Your task to perform on an android device: change the clock style Image 0: 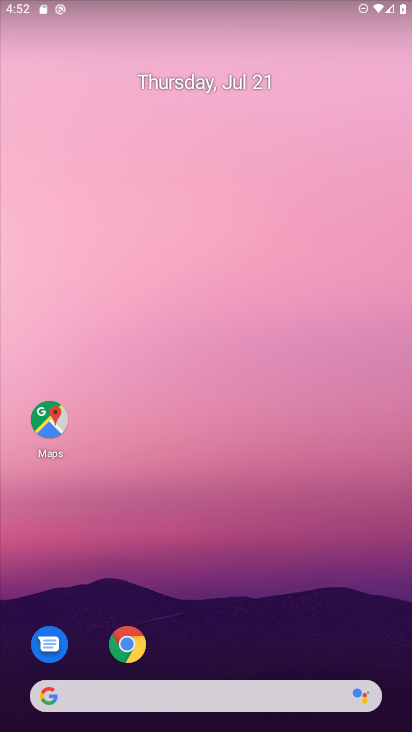
Step 0: drag from (227, 205) to (348, 79)
Your task to perform on an android device: change the clock style Image 1: 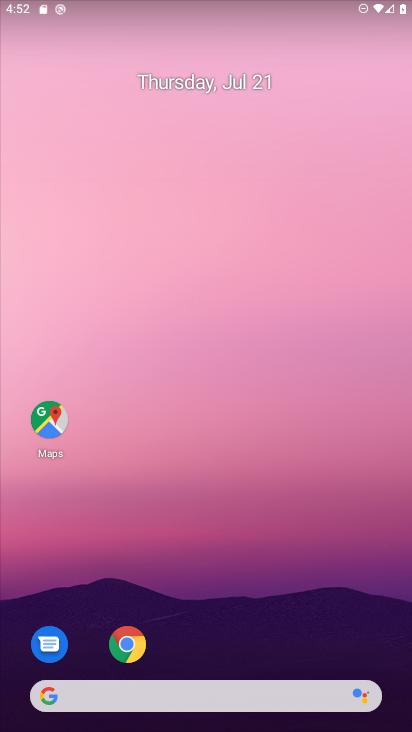
Step 1: drag from (185, 646) to (246, 122)
Your task to perform on an android device: change the clock style Image 2: 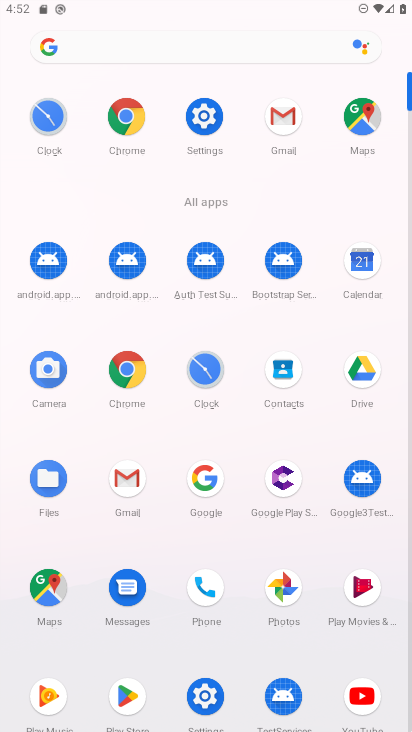
Step 2: click (203, 386)
Your task to perform on an android device: change the clock style Image 3: 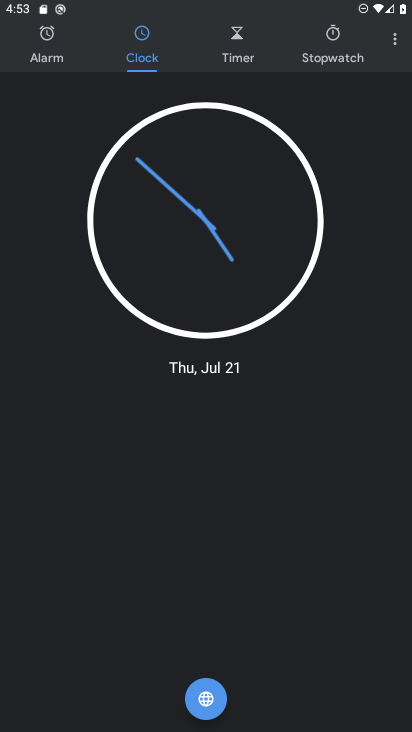
Step 3: click (394, 44)
Your task to perform on an android device: change the clock style Image 4: 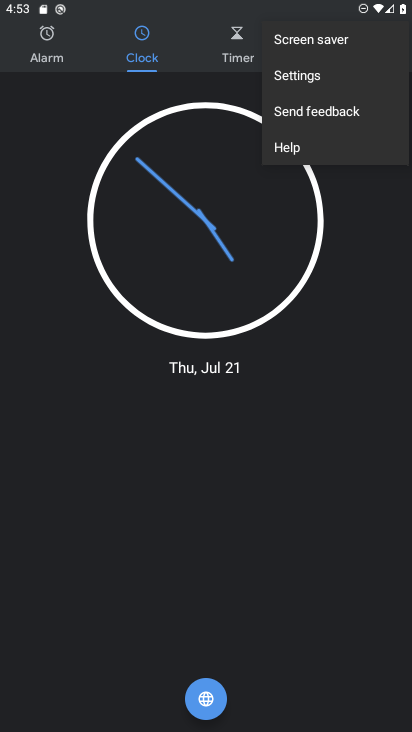
Step 4: click (292, 85)
Your task to perform on an android device: change the clock style Image 5: 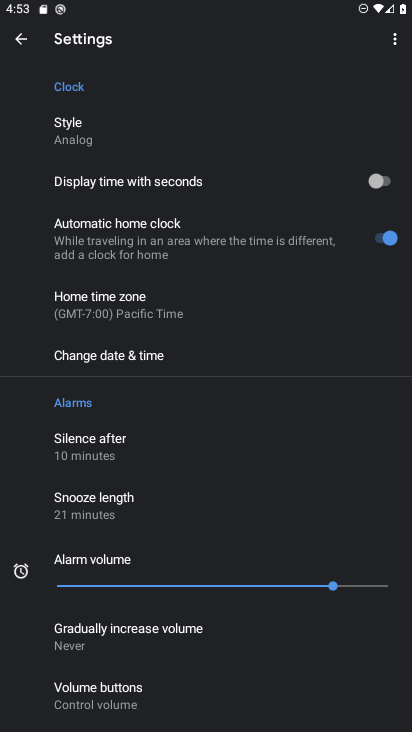
Step 5: click (80, 129)
Your task to perform on an android device: change the clock style Image 6: 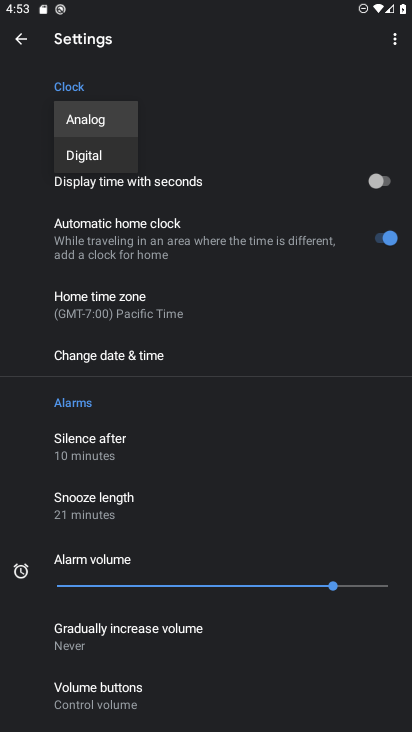
Step 6: click (80, 154)
Your task to perform on an android device: change the clock style Image 7: 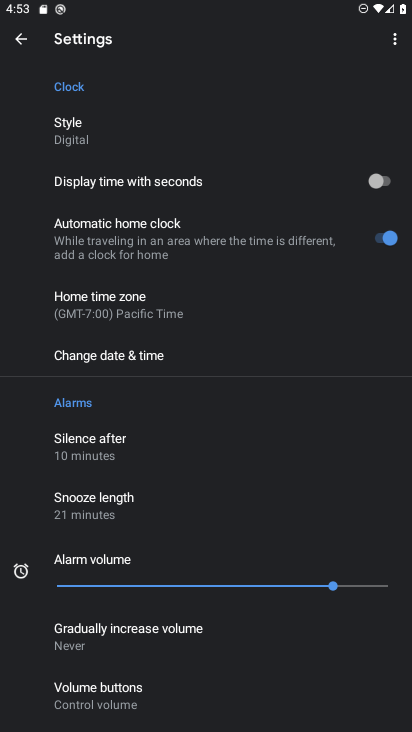
Step 7: task complete